Your task to perform on an android device: Search for sushi restaurants on Maps Image 0: 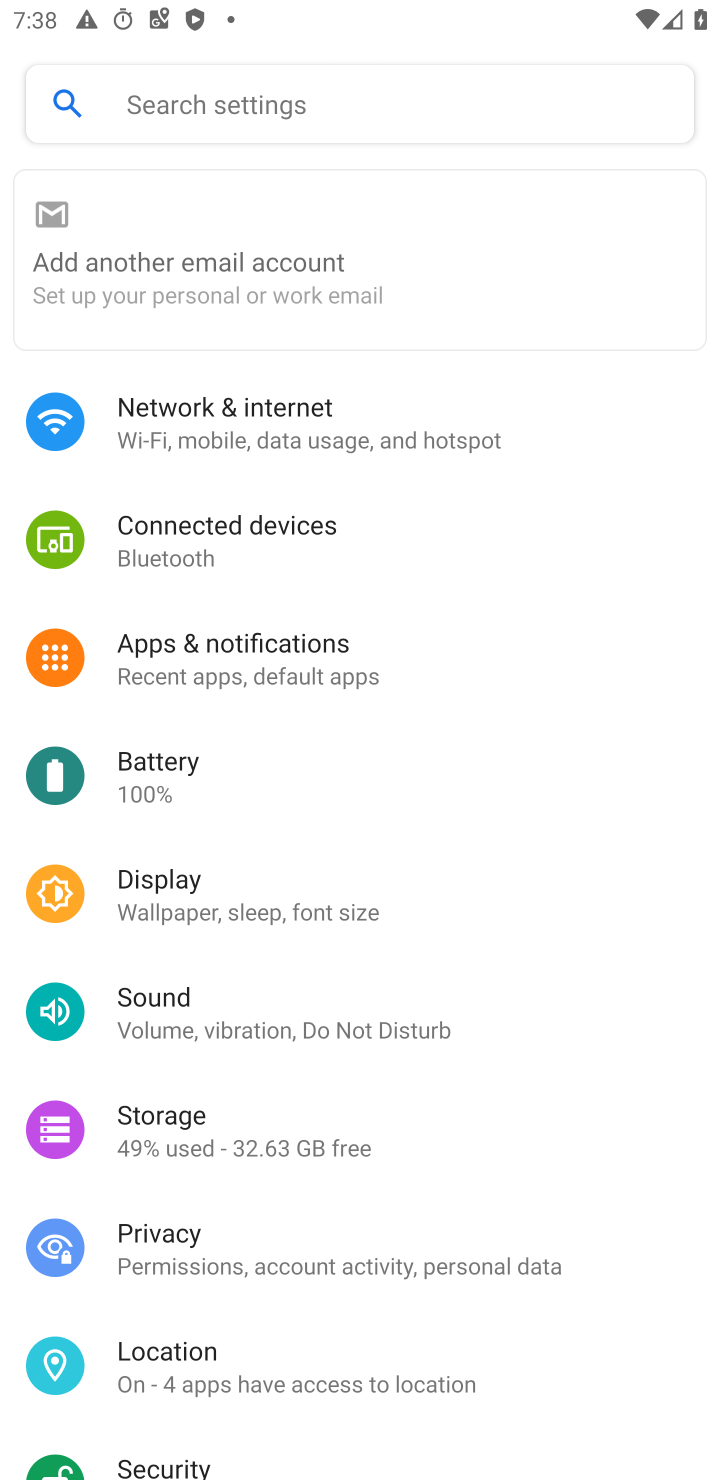
Step 0: press home button
Your task to perform on an android device: Search for sushi restaurants on Maps Image 1: 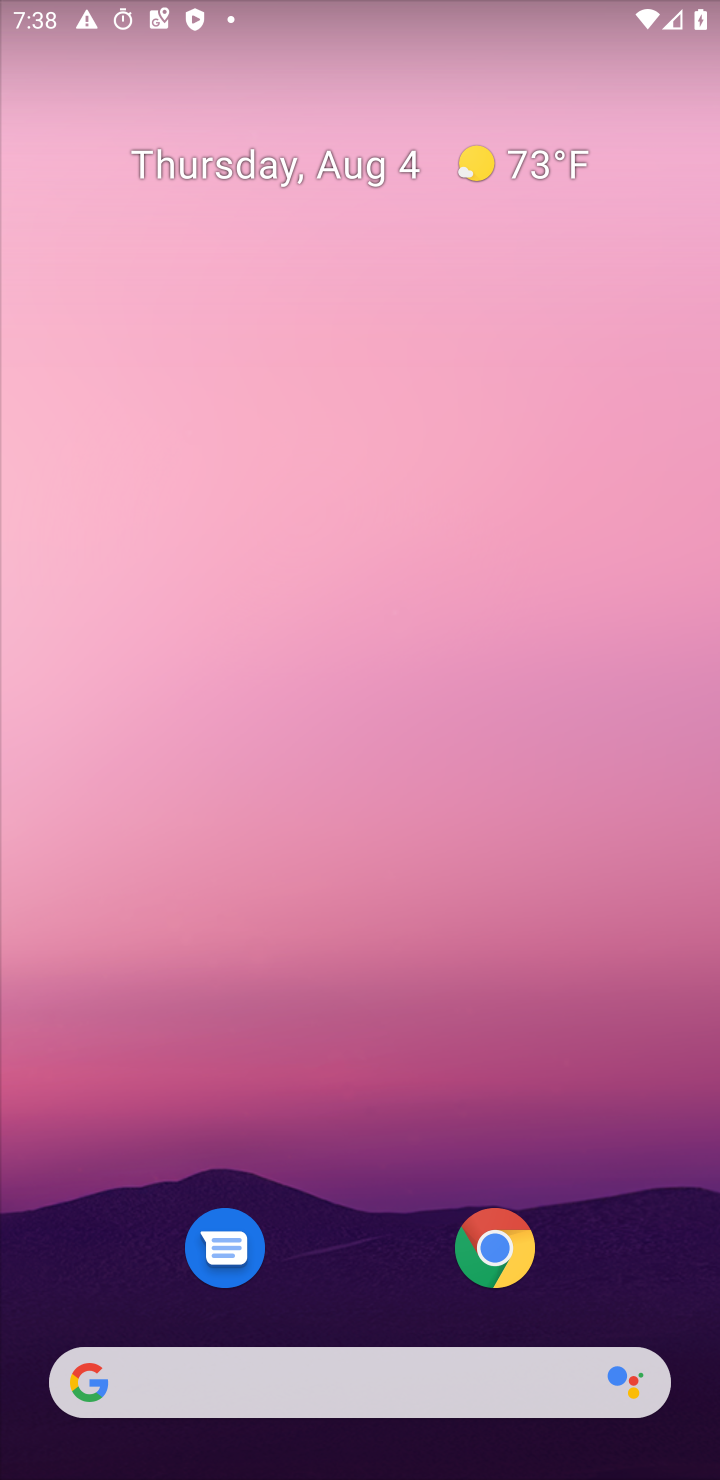
Step 1: drag from (435, 1224) to (575, 231)
Your task to perform on an android device: Search for sushi restaurants on Maps Image 2: 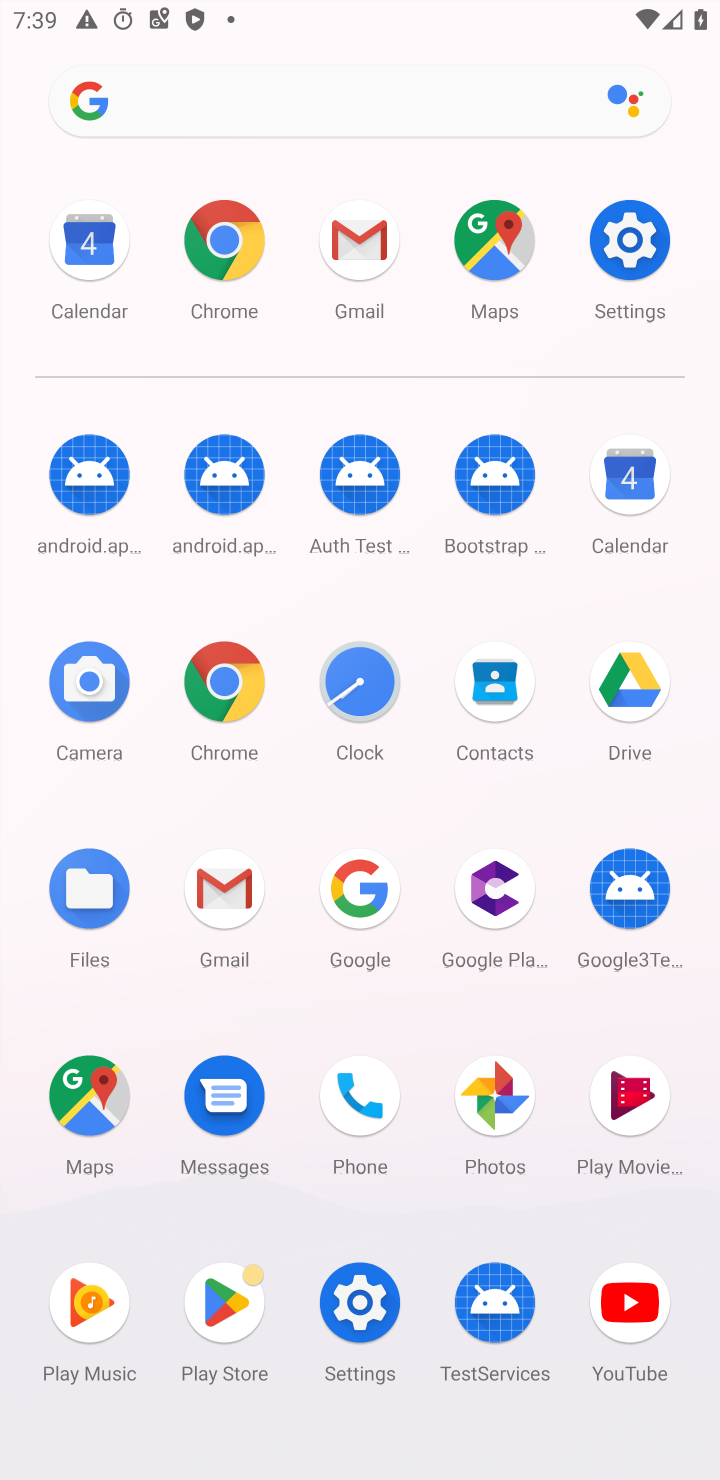
Step 2: click (485, 250)
Your task to perform on an android device: Search for sushi restaurants on Maps Image 3: 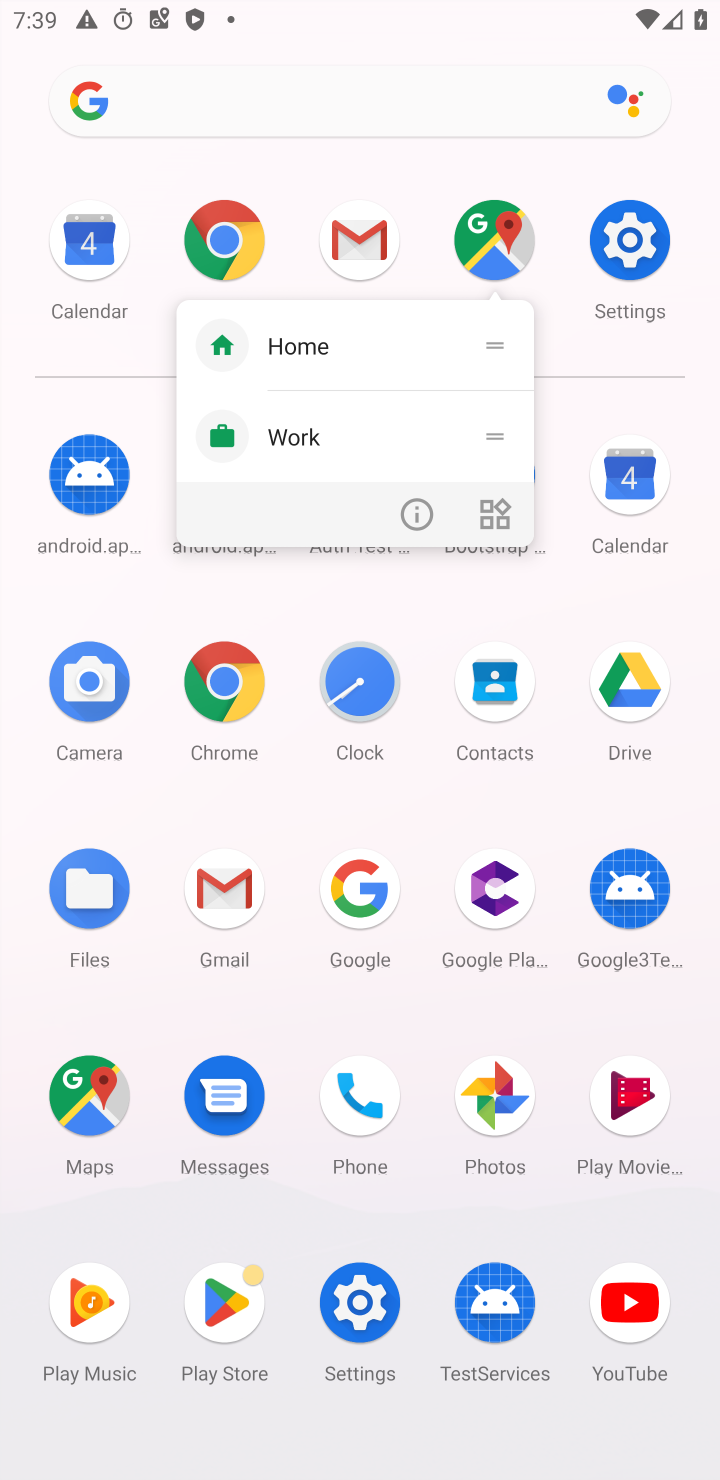
Step 3: click (500, 233)
Your task to perform on an android device: Search for sushi restaurants on Maps Image 4: 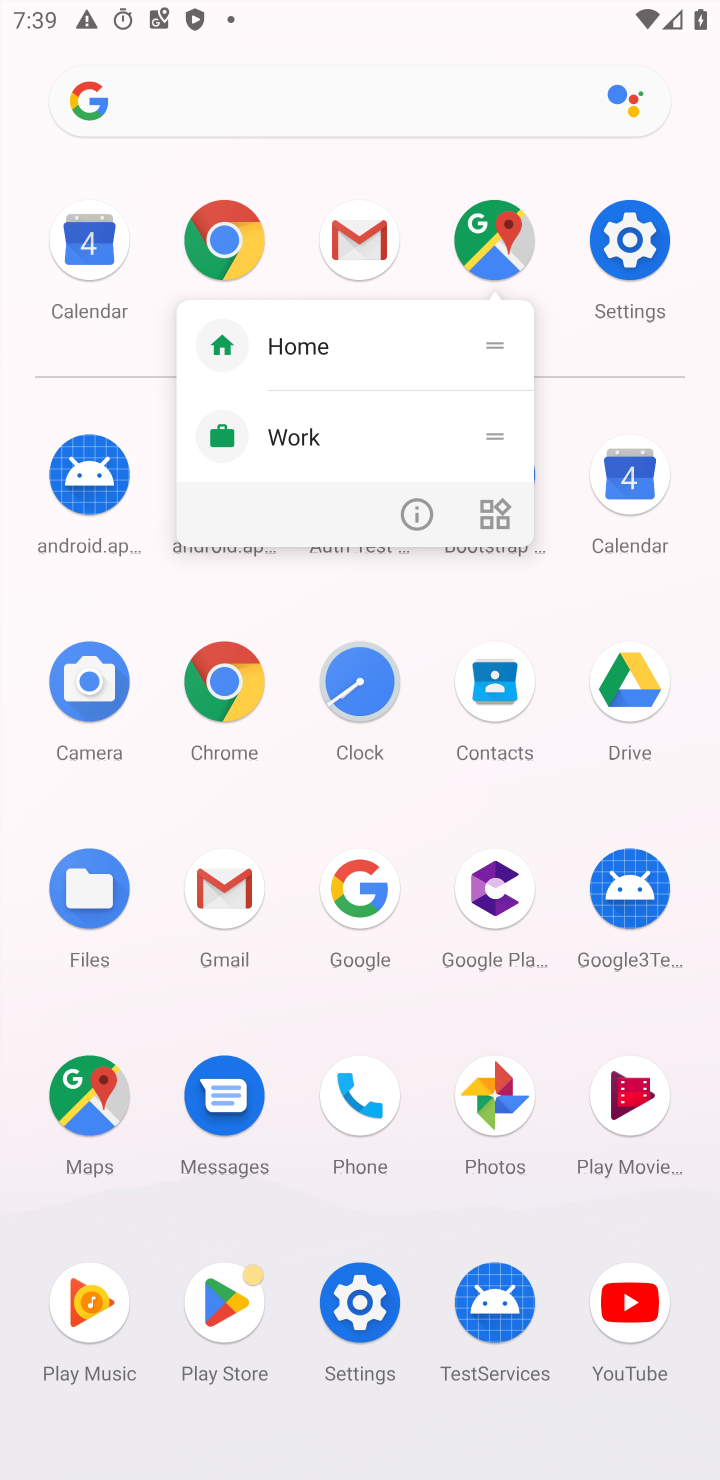
Step 4: click (471, 237)
Your task to perform on an android device: Search for sushi restaurants on Maps Image 5: 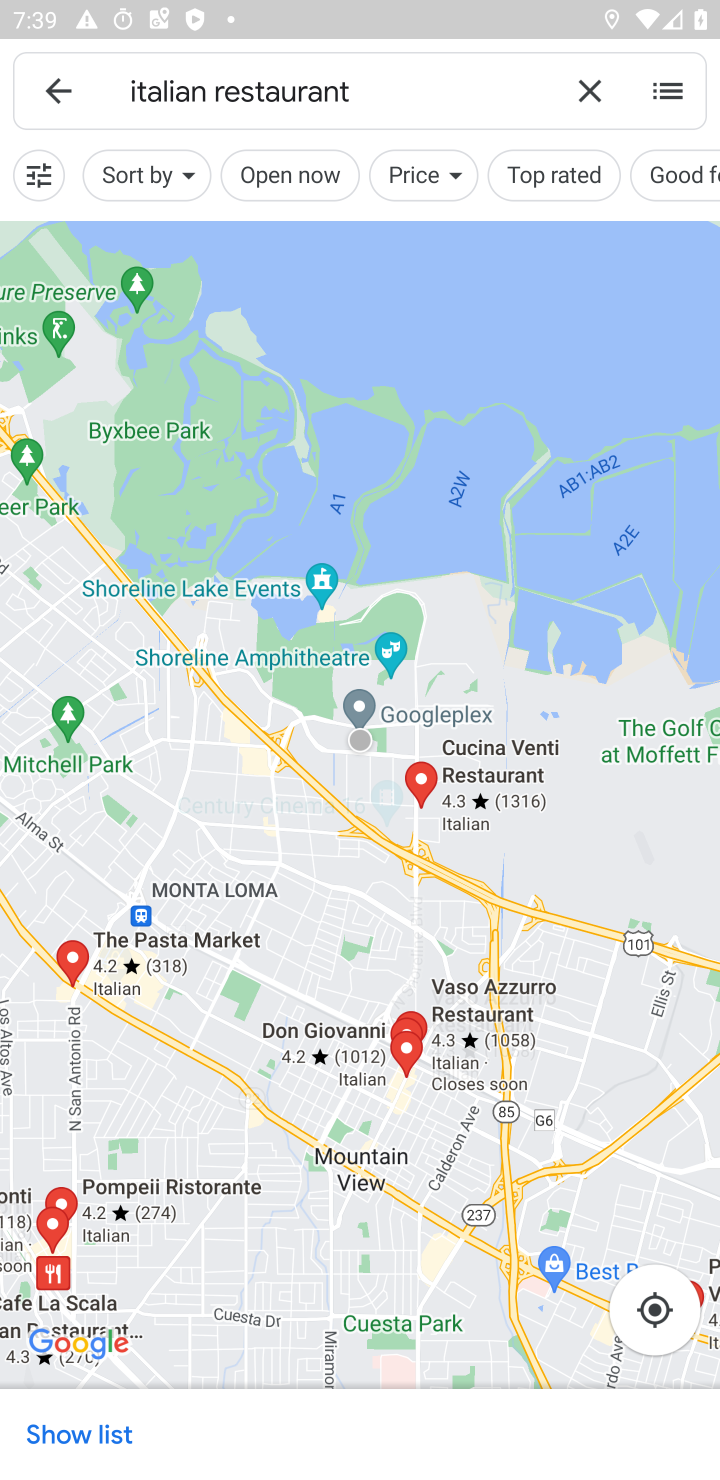
Step 5: click (595, 83)
Your task to perform on an android device: Search for sushi restaurants on Maps Image 6: 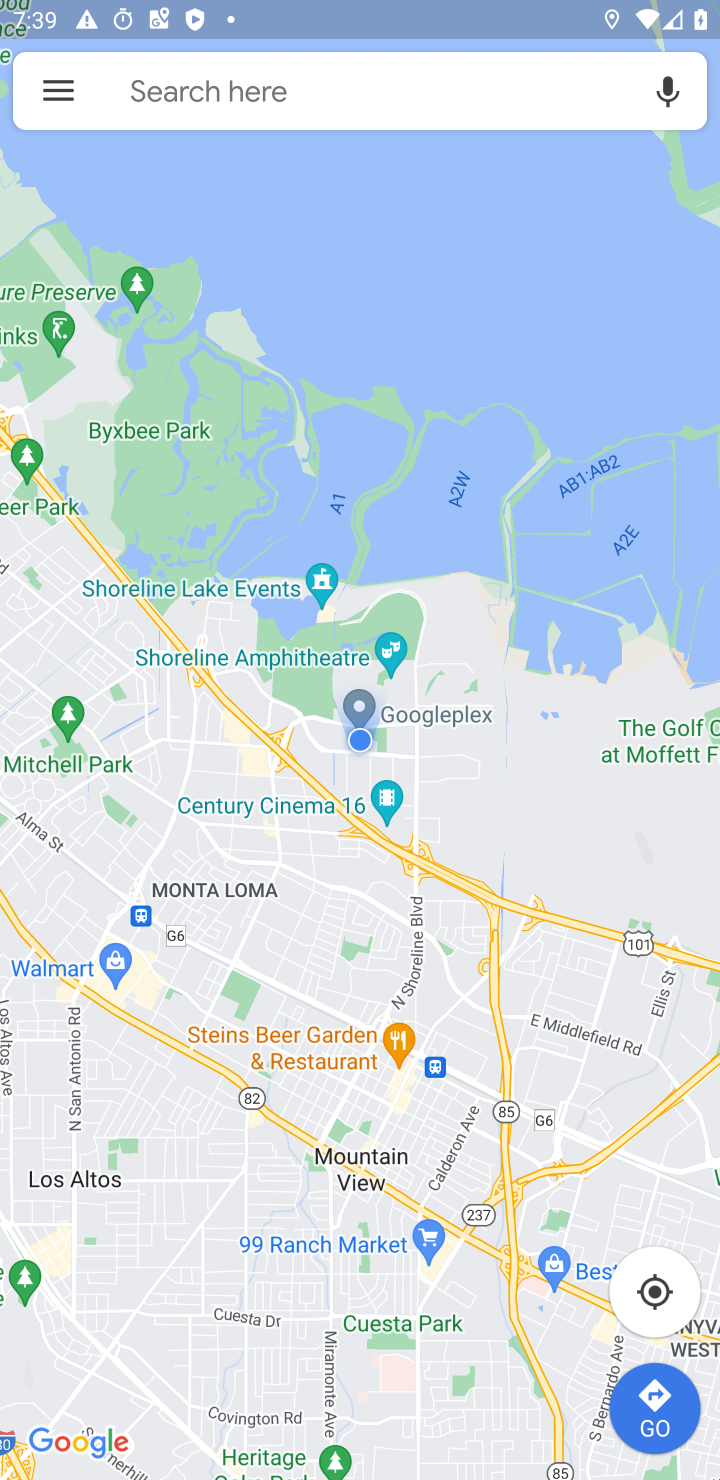
Step 6: click (198, 107)
Your task to perform on an android device: Search for sushi restaurants on Maps Image 7: 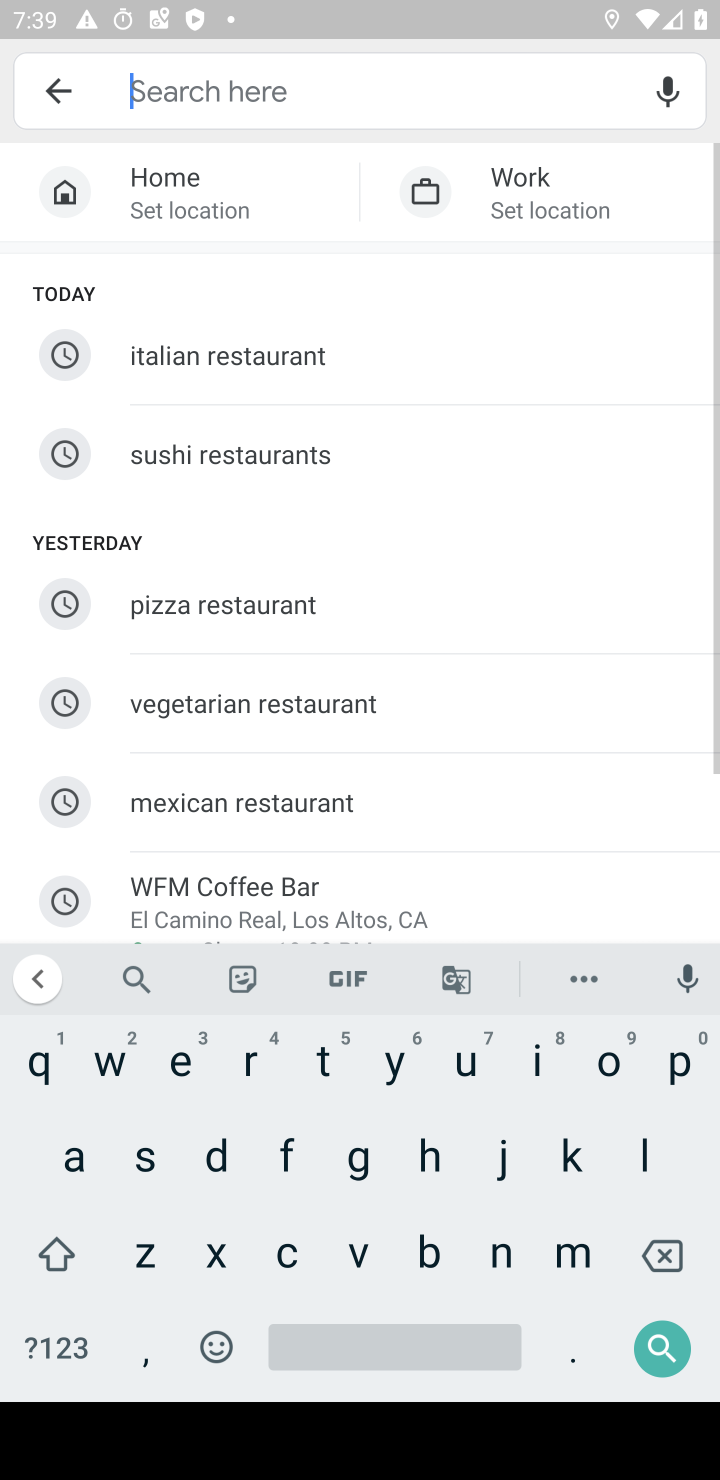
Step 7: click (326, 460)
Your task to perform on an android device: Search for sushi restaurants on Maps Image 8: 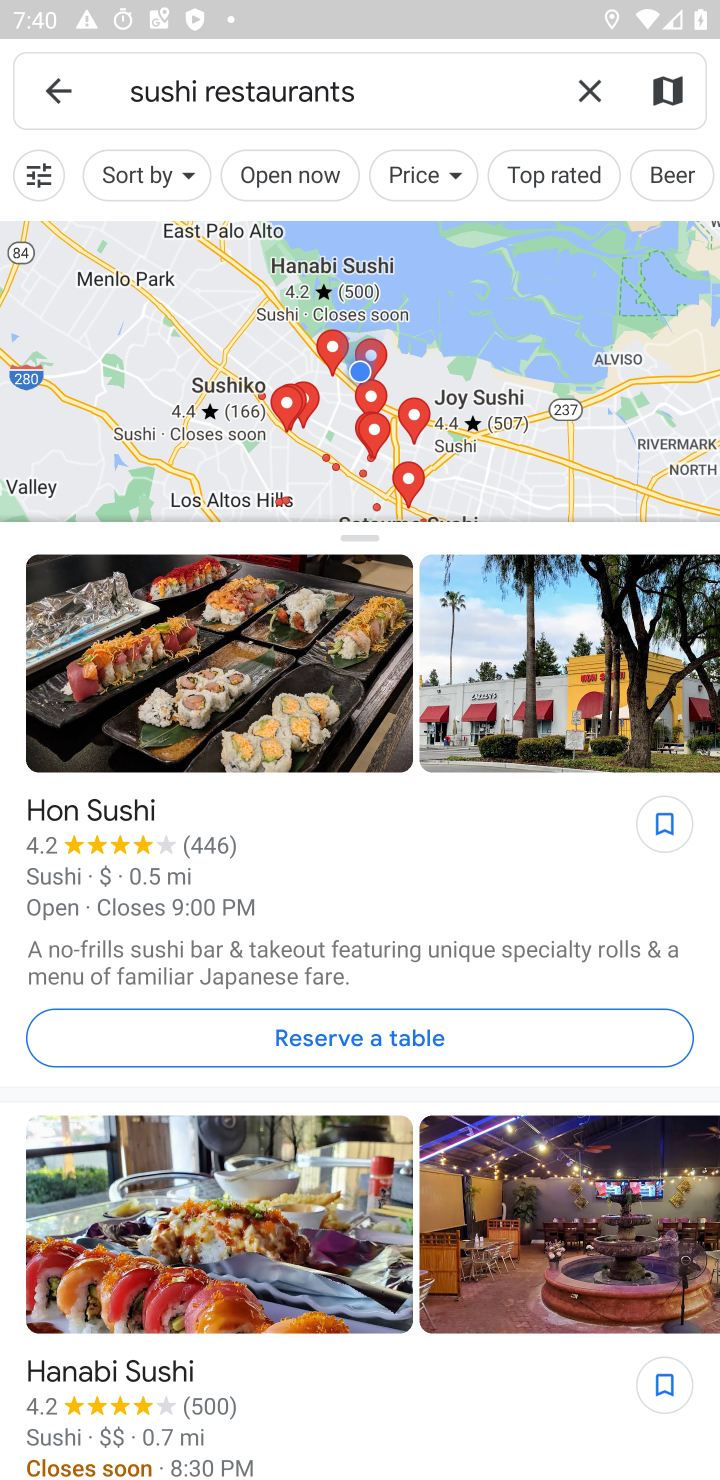
Step 8: task complete